Your task to perform on an android device: Open the map Image 0: 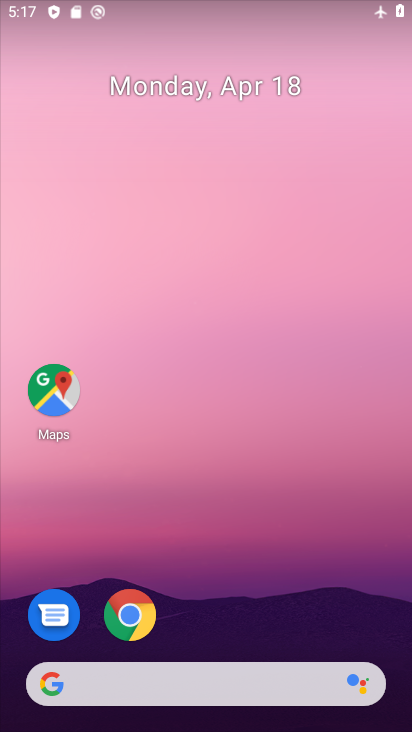
Step 0: drag from (272, 608) to (235, 0)
Your task to perform on an android device: Open the map Image 1: 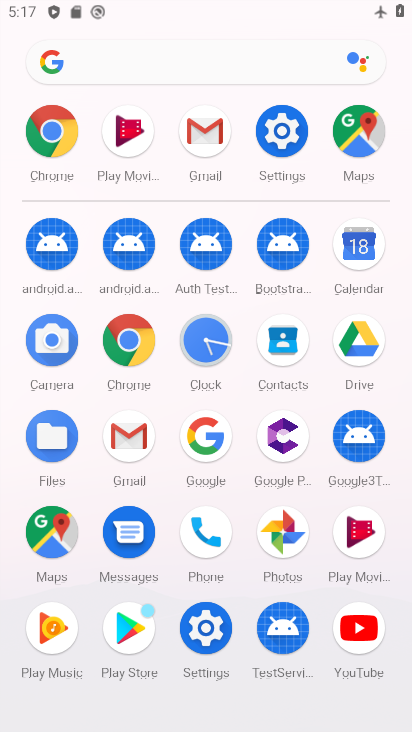
Step 1: click (69, 537)
Your task to perform on an android device: Open the map Image 2: 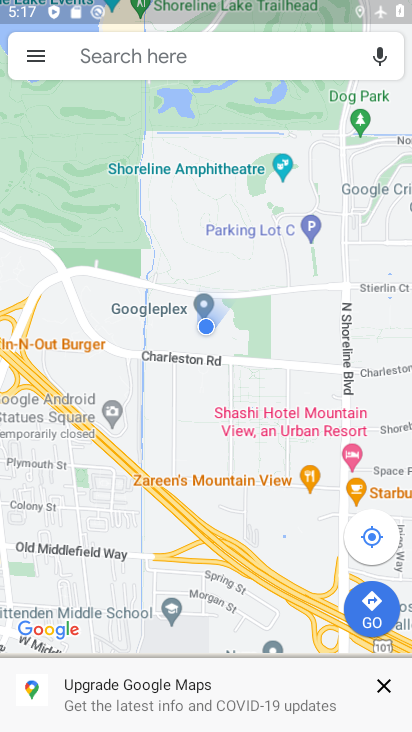
Step 2: task complete